Your task to perform on an android device: allow notifications from all sites in the chrome app Image 0: 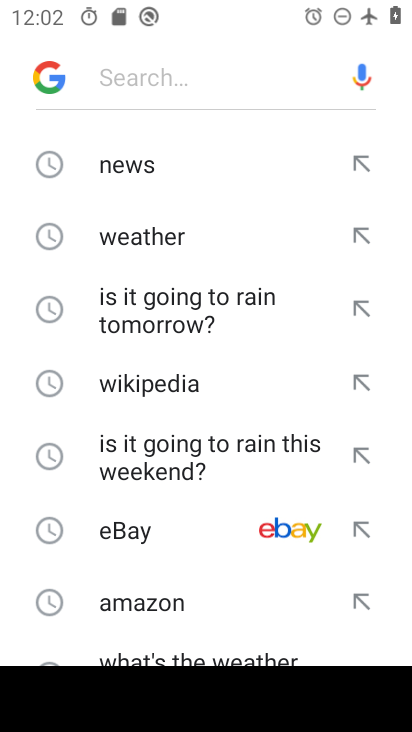
Step 0: press back button
Your task to perform on an android device: allow notifications from all sites in the chrome app Image 1: 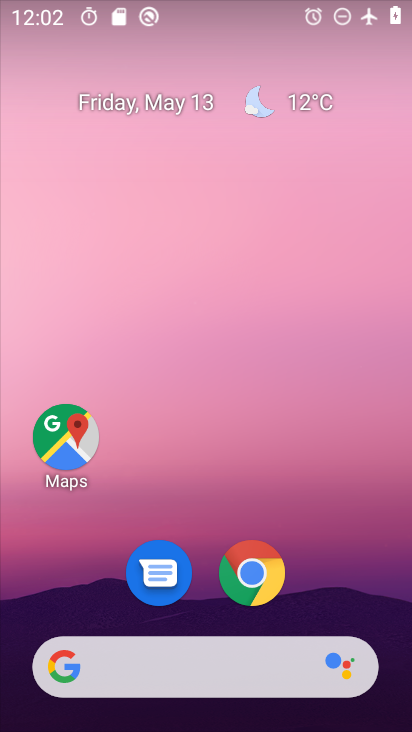
Step 1: click (252, 565)
Your task to perform on an android device: allow notifications from all sites in the chrome app Image 2: 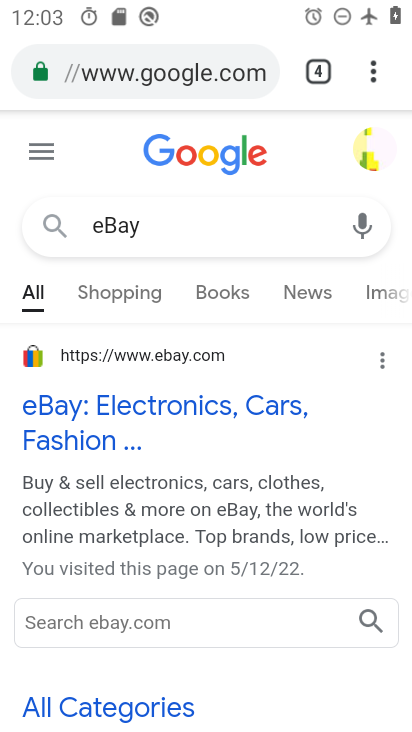
Step 2: click (367, 77)
Your task to perform on an android device: allow notifications from all sites in the chrome app Image 3: 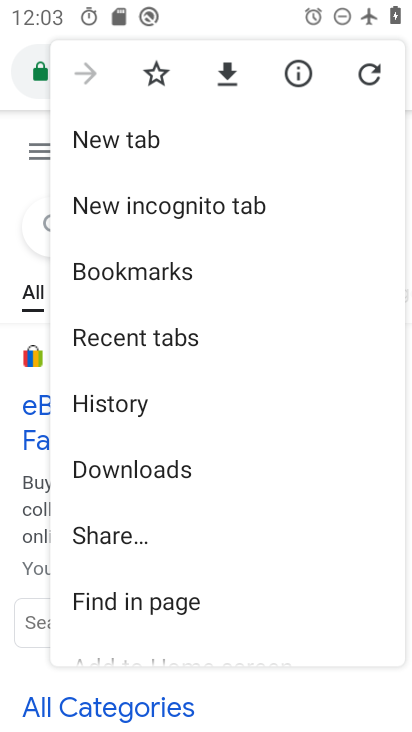
Step 3: drag from (280, 610) to (283, 395)
Your task to perform on an android device: allow notifications from all sites in the chrome app Image 4: 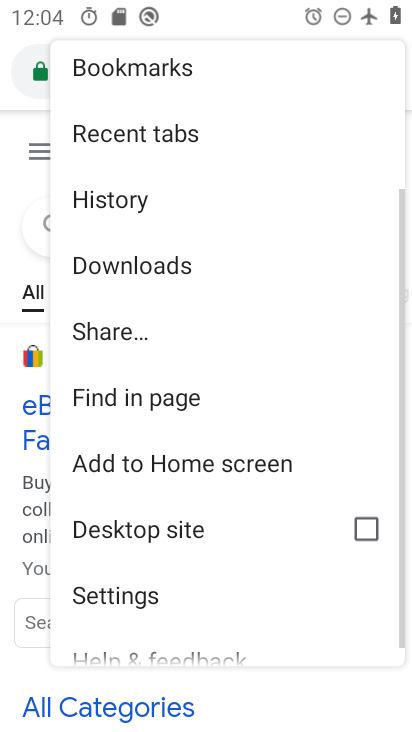
Step 4: drag from (265, 633) to (261, 424)
Your task to perform on an android device: allow notifications from all sites in the chrome app Image 5: 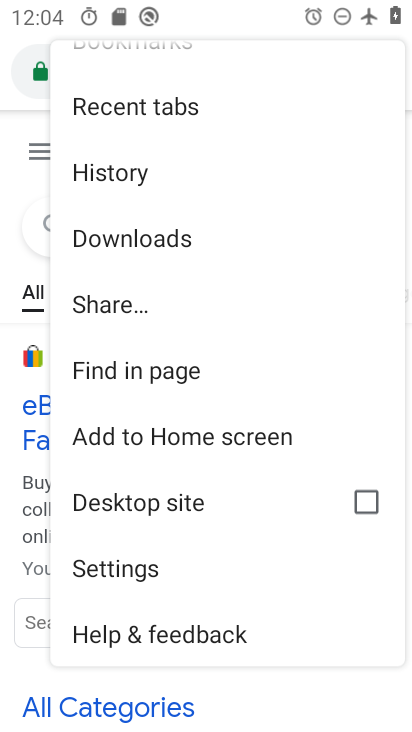
Step 5: click (137, 566)
Your task to perform on an android device: allow notifications from all sites in the chrome app Image 6: 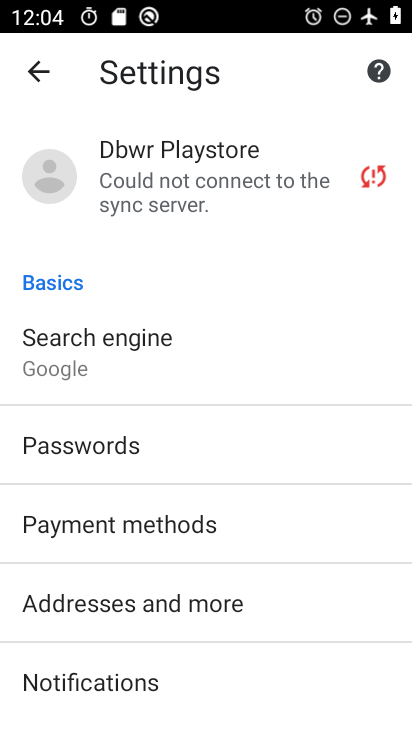
Step 6: click (106, 684)
Your task to perform on an android device: allow notifications from all sites in the chrome app Image 7: 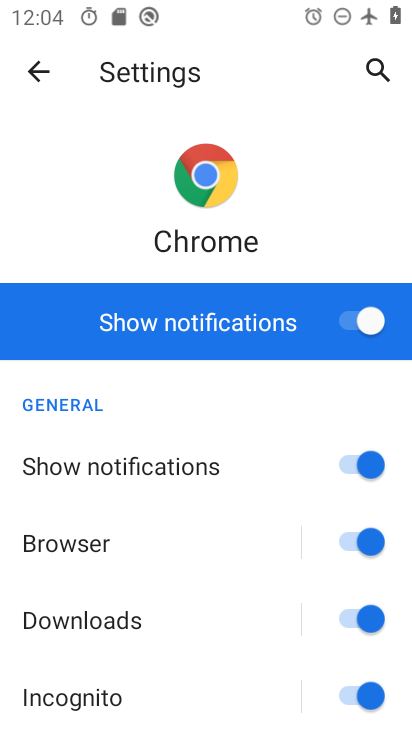
Step 7: click (346, 327)
Your task to perform on an android device: allow notifications from all sites in the chrome app Image 8: 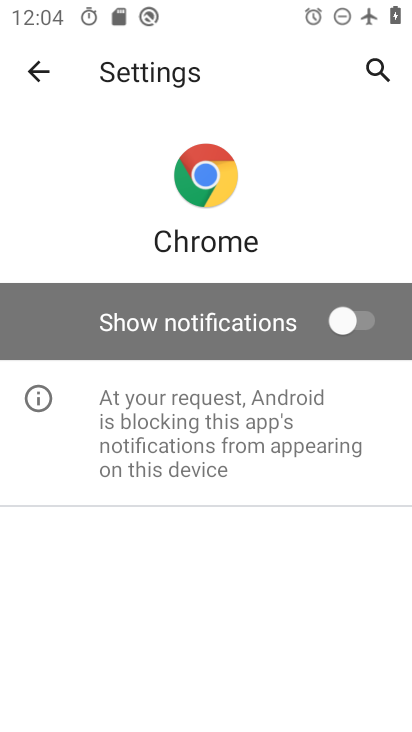
Step 8: task complete